Your task to perform on an android device: make emails show in primary in the gmail app Image 0: 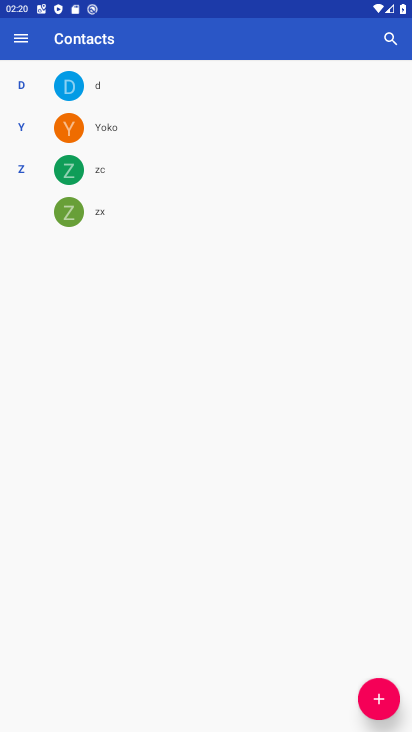
Step 0: press home button
Your task to perform on an android device: make emails show in primary in the gmail app Image 1: 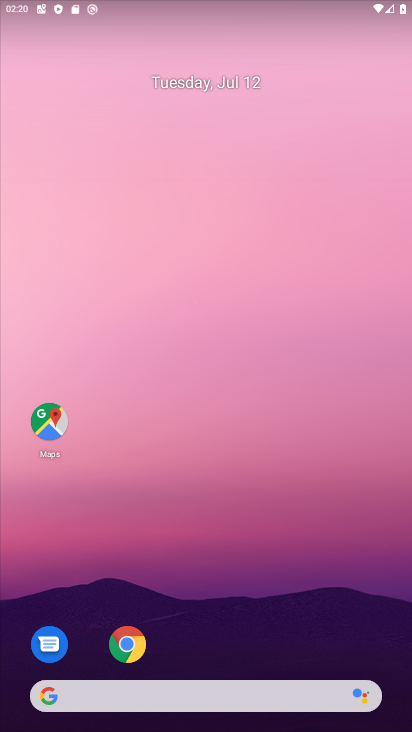
Step 1: drag from (202, 656) to (179, 143)
Your task to perform on an android device: make emails show in primary in the gmail app Image 2: 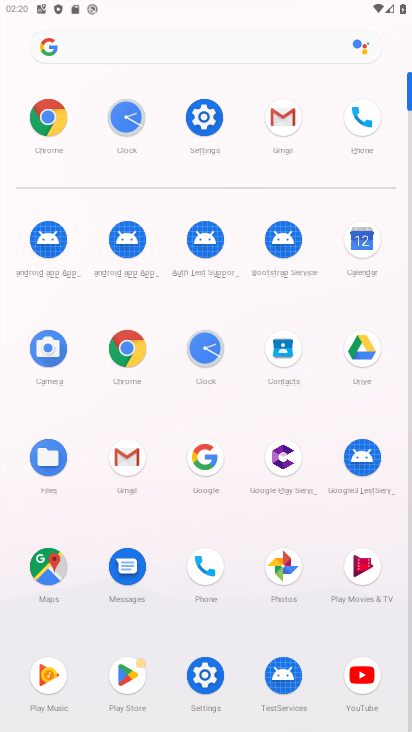
Step 2: click (126, 458)
Your task to perform on an android device: make emails show in primary in the gmail app Image 3: 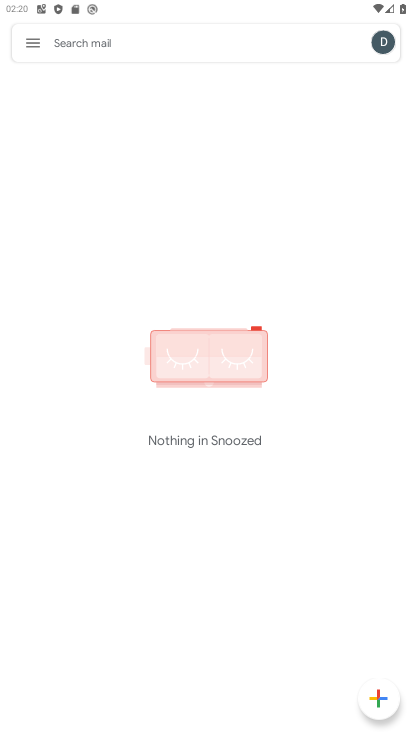
Step 3: click (34, 42)
Your task to perform on an android device: make emails show in primary in the gmail app Image 4: 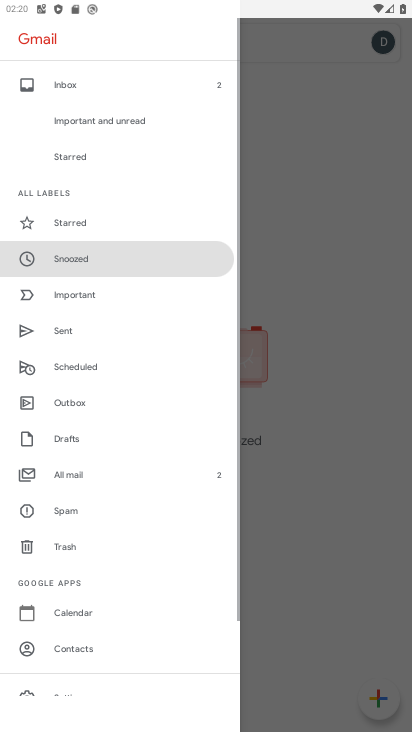
Step 4: drag from (191, 238) to (161, 55)
Your task to perform on an android device: make emails show in primary in the gmail app Image 5: 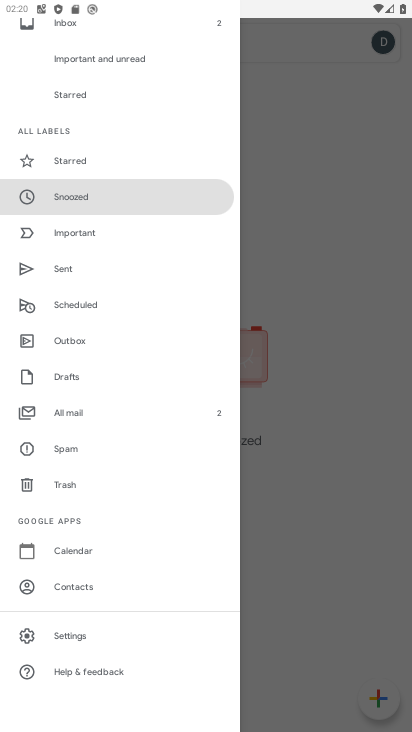
Step 5: click (63, 647)
Your task to perform on an android device: make emails show in primary in the gmail app Image 6: 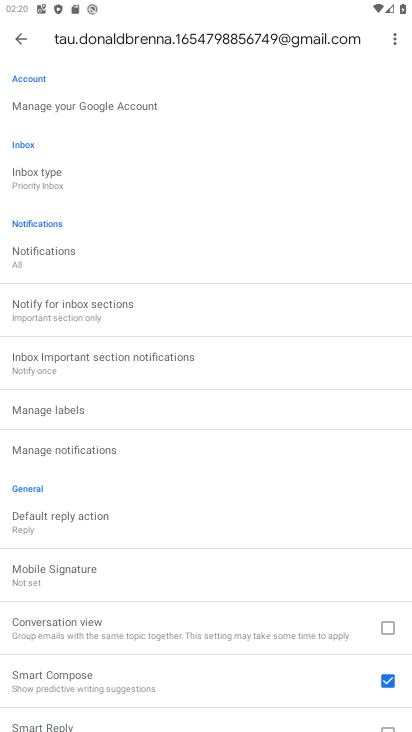
Step 6: click (75, 188)
Your task to perform on an android device: make emails show in primary in the gmail app Image 7: 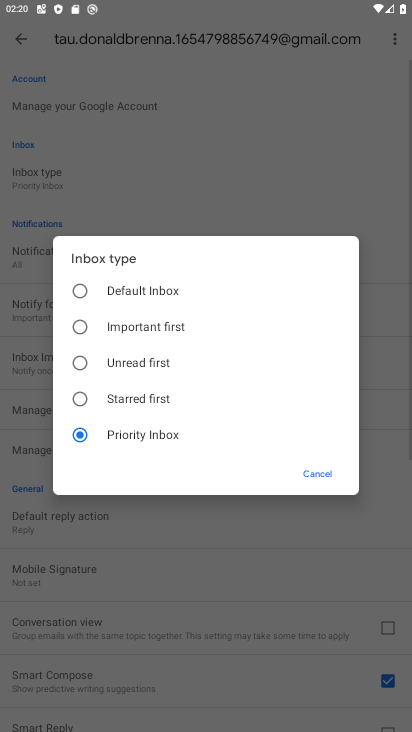
Step 7: click (136, 292)
Your task to perform on an android device: make emails show in primary in the gmail app Image 8: 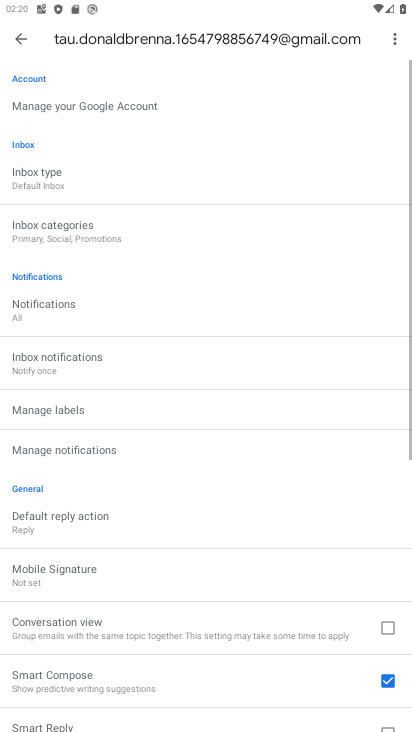
Step 8: click (16, 45)
Your task to perform on an android device: make emails show in primary in the gmail app Image 9: 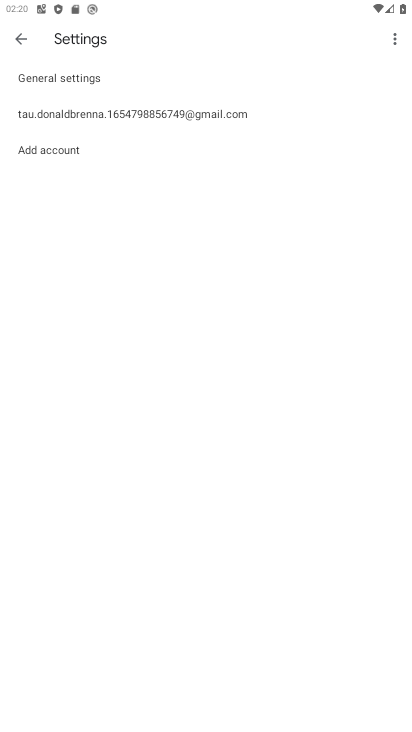
Step 9: click (20, 39)
Your task to perform on an android device: make emails show in primary in the gmail app Image 10: 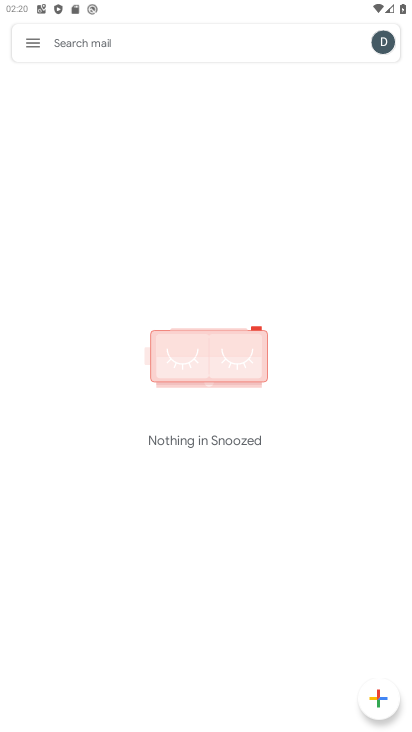
Step 10: click (35, 40)
Your task to perform on an android device: make emails show in primary in the gmail app Image 11: 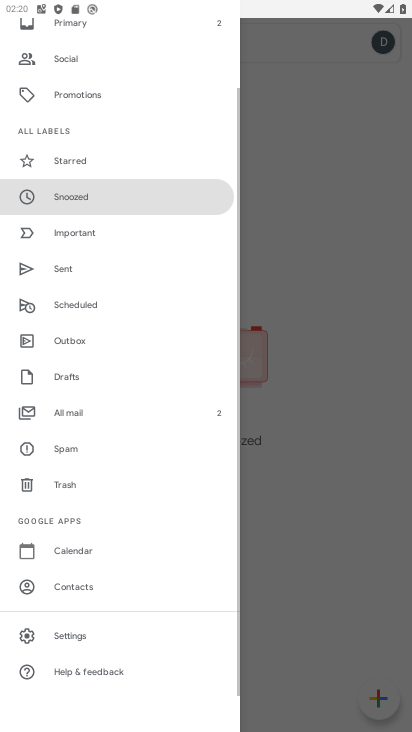
Step 11: click (67, 22)
Your task to perform on an android device: make emails show in primary in the gmail app Image 12: 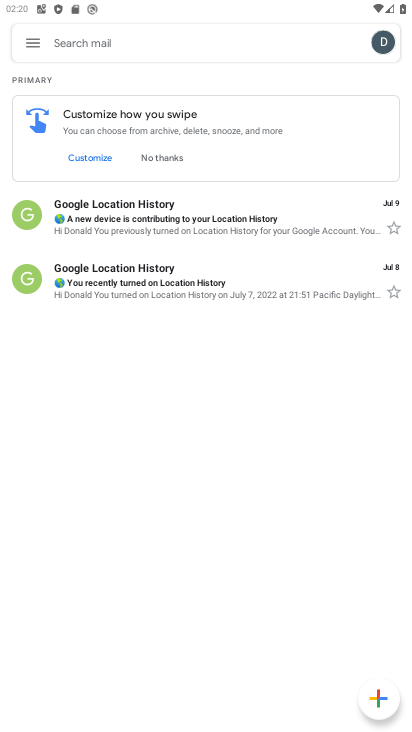
Step 12: task complete